Your task to perform on an android device: open sync settings in chrome Image 0: 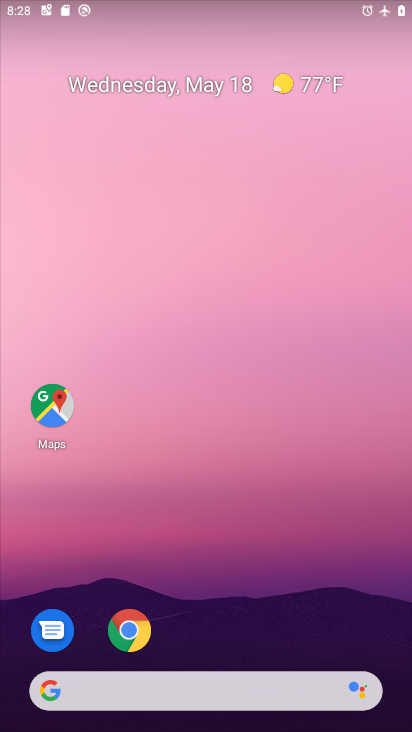
Step 0: click (127, 647)
Your task to perform on an android device: open sync settings in chrome Image 1: 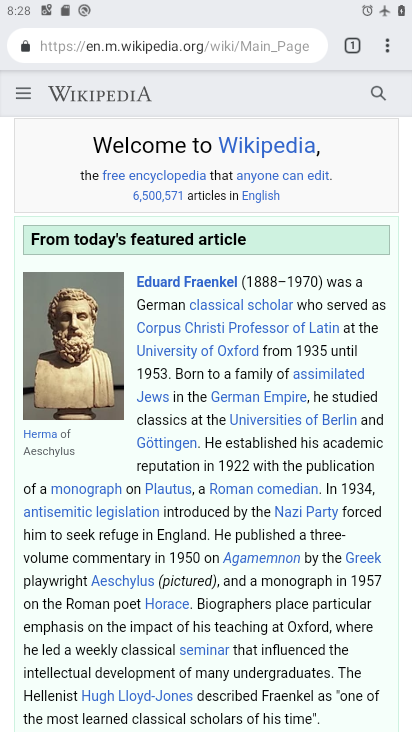
Step 1: drag from (386, 48) to (226, 512)
Your task to perform on an android device: open sync settings in chrome Image 2: 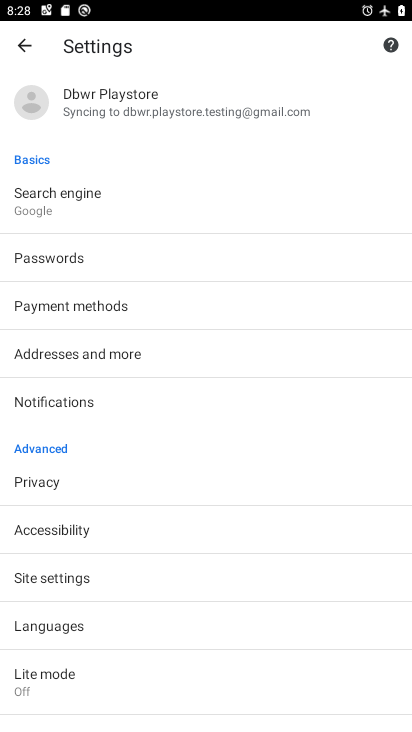
Step 2: click (61, 583)
Your task to perform on an android device: open sync settings in chrome Image 3: 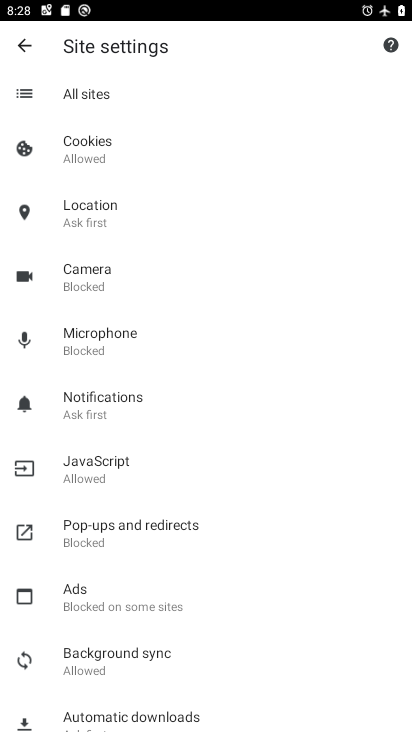
Step 3: click (115, 673)
Your task to perform on an android device: open sync settings in chrome Image 4: 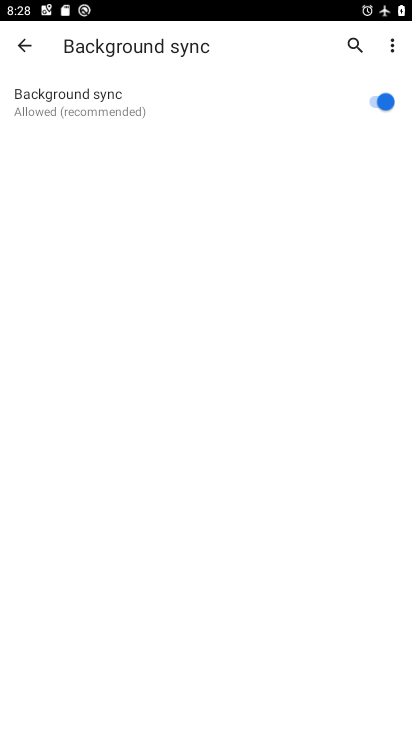
Step 4: task complete